Your task to perform on an android device: Open Yahoo.com Image 0: 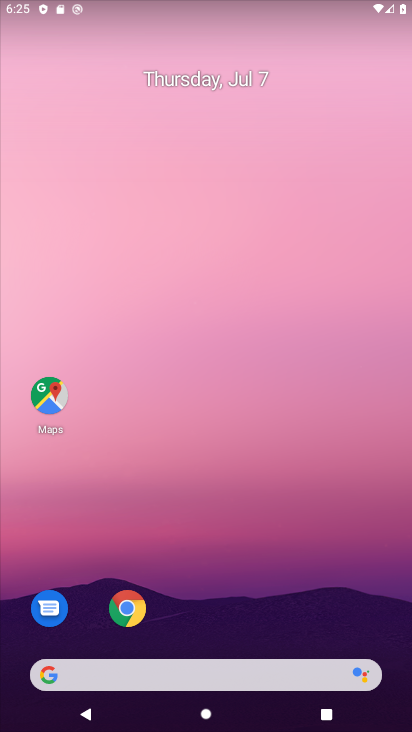
Step 0: click (134, 604)
Your task to perform on an android device: Open Yahoo.com Image 1: 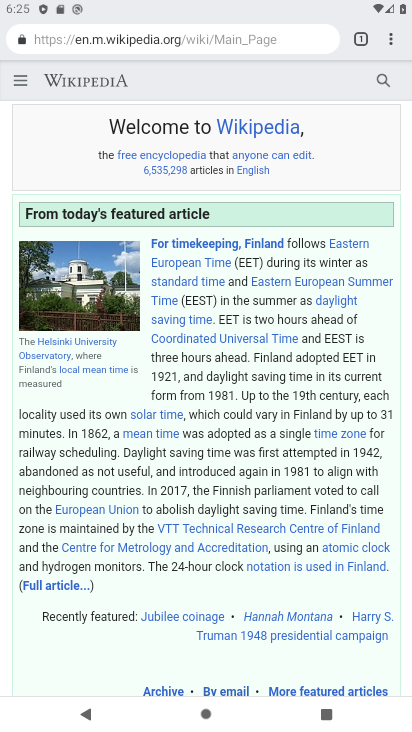
Step 1: click (362, 38)
Your task to perform on an android device: Open Yahoo.com Image 2: 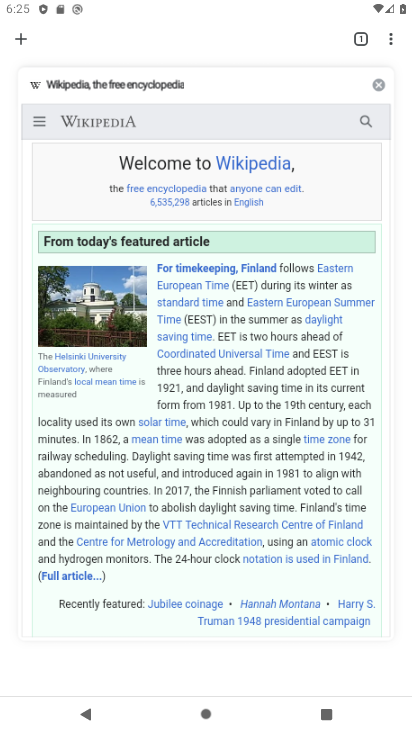
Step 2: click (18, 35)
Your task to perform on an android device: Open Yahoo.com Image 3: 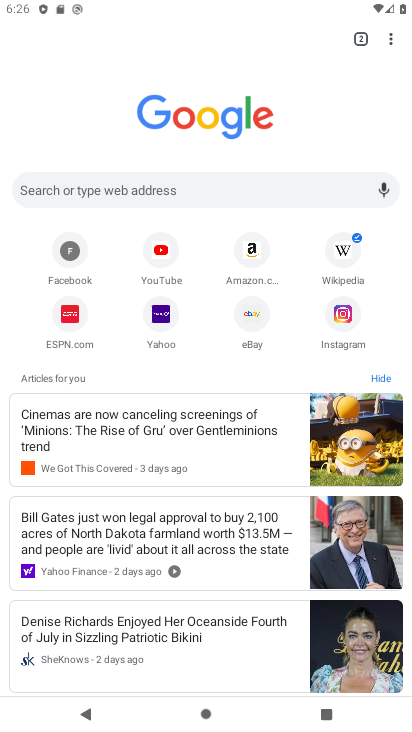
Step 3: click (169, 324)
Your task to perform on an android device: Open Yahoo.com Image 4: 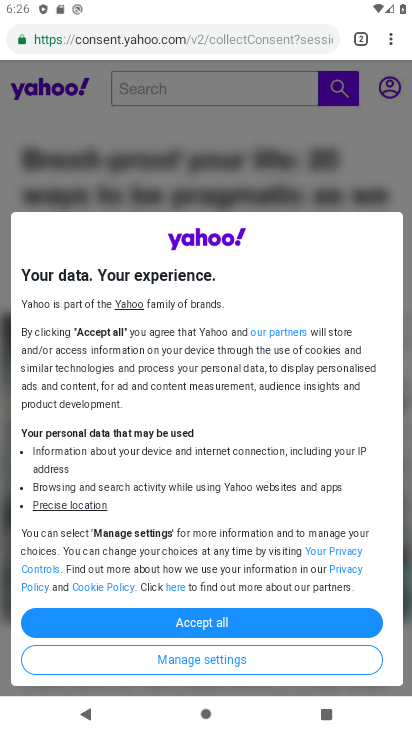
Step 4: task complete